Your task to perform on an android device: turn smart compose on in the gmail app Image 0: 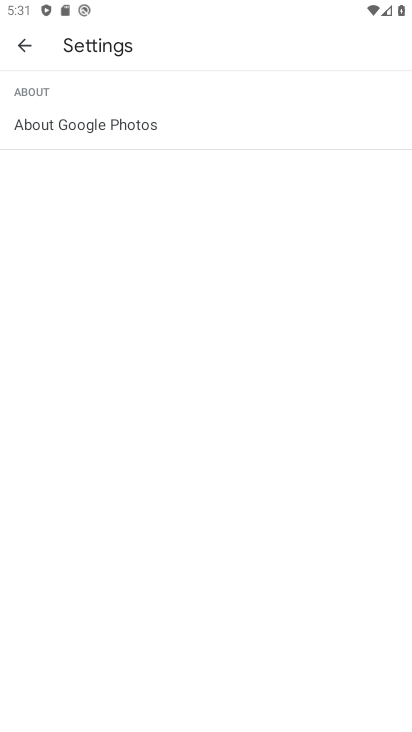
Step 0: press home button
Your task to perform on an android device: turn smart compose on in the gmail app Image 1: 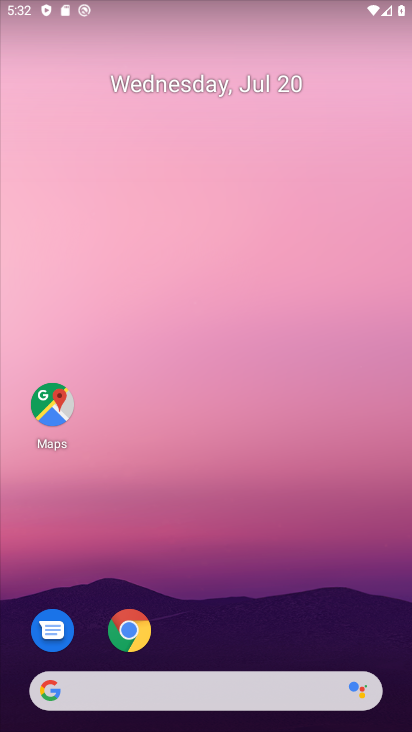
Step 1: drag from (362, 671) to (339, 130)
Your task to perform on an android device: turn smart compose on in the gmail app Image 2: 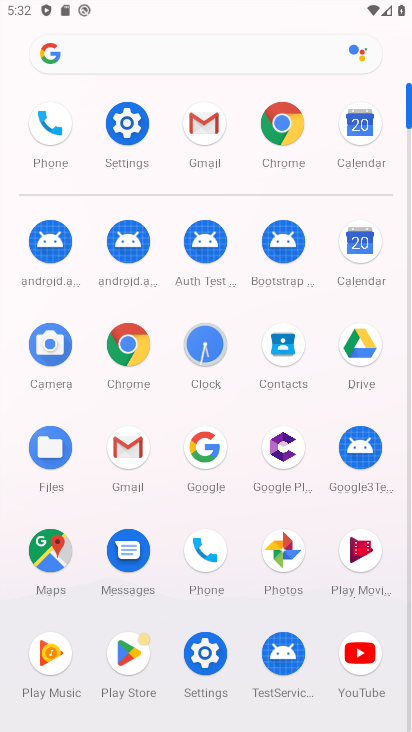
Step 2: click (122, 443)
Your task to perform on an android device: turn smart compose on in the gmail app Image 3: 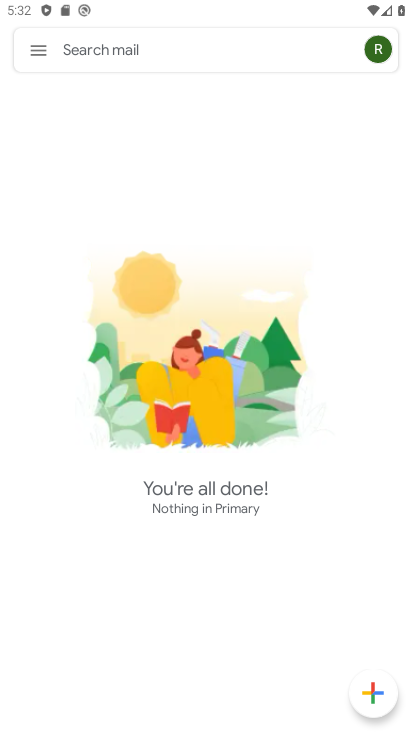
Step 3: click (42, 53)
Your task to perform on an android device: turn smart compose on in the gmail app Image 4: 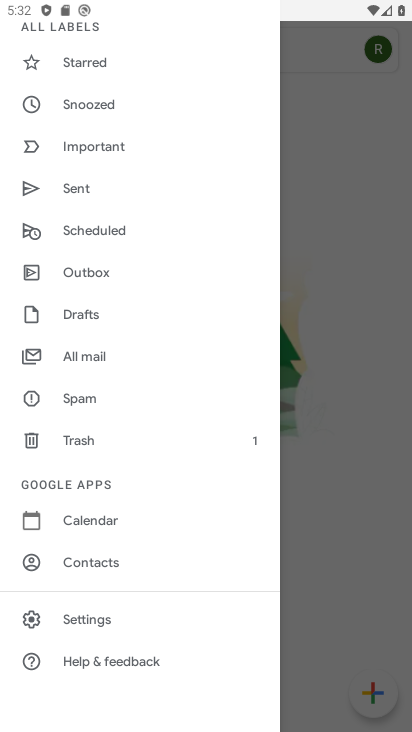
Step 4: click (86, 624)
Your task to perform on an android device: turn smart compose on in the gmail app Image 5: 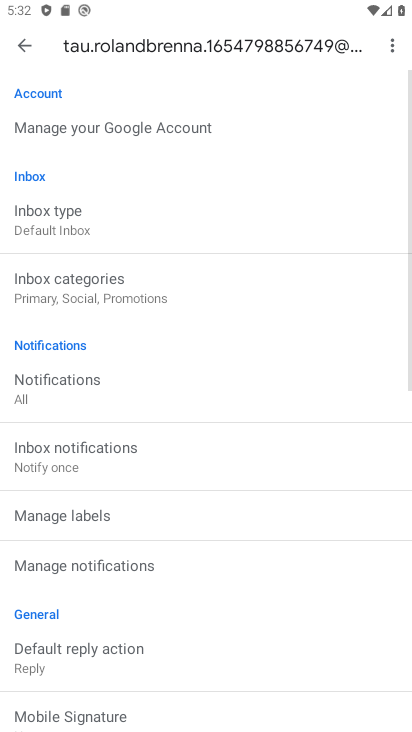
Step 5: task complete